Your task to perform on an android device: Show the shopping cart on ebay. Add jbl charge 4 to the cart on ebay Image 0: 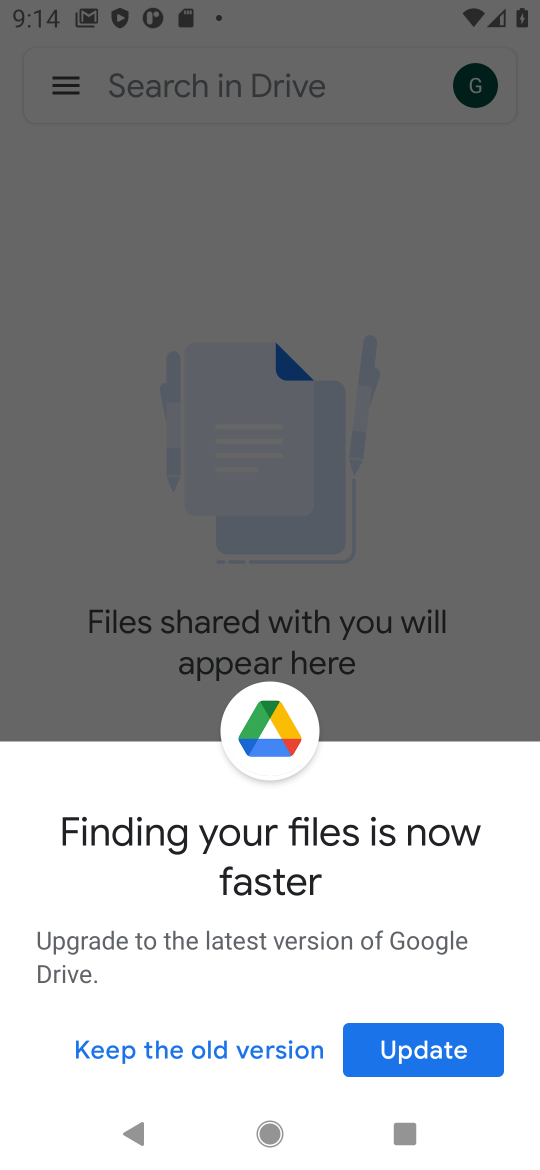
Step 0: press home button
Your task to perform on an android device: Show the shopping cart on ebay. Add jbl charge 4 to the cart on ebay Image 1: 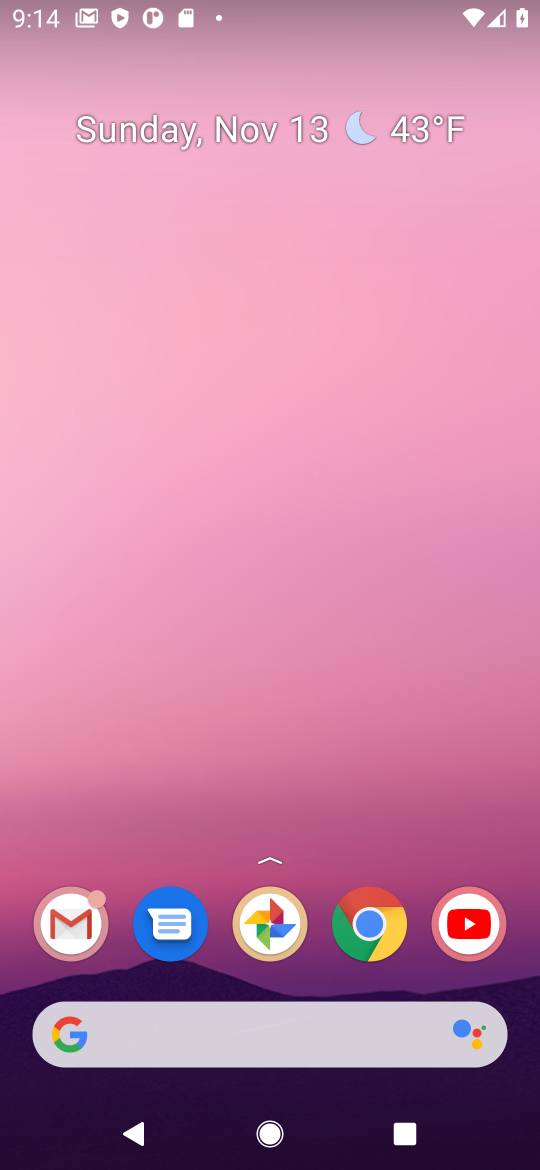
Step 1: click (381, 925)
Your task to perform on an android device: Show the shopping cart on ebay. Add jbl charge 4 to the cart on ebay Image 2: 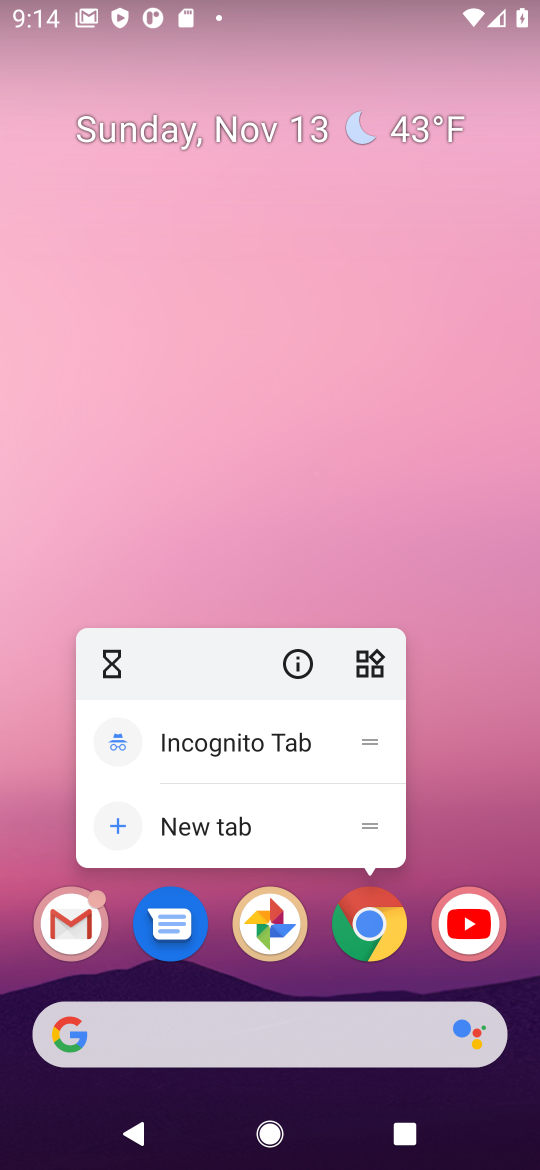
Step 2: click (369, 922)
Your task to perform on an android device: Show the shopping cart on ebay. Add jbl charge 4 to the cart on ebay Image 3: 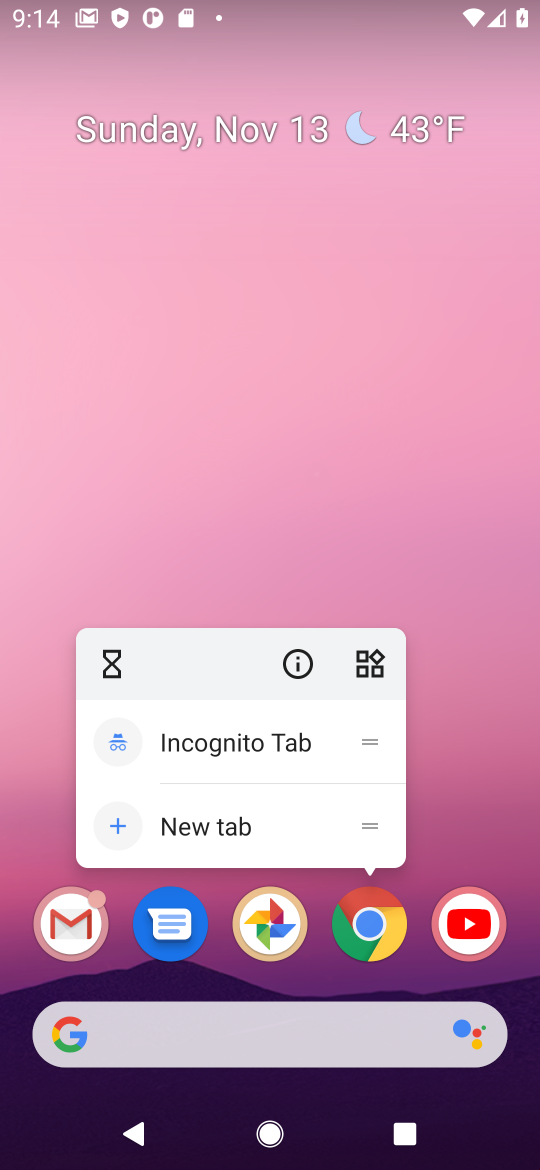
Step 3: click (367, 925)
Your task to perform on an android device: Show the shopping cart on ebay. Add jbl charge 4 to the cart on ebay Image 4: 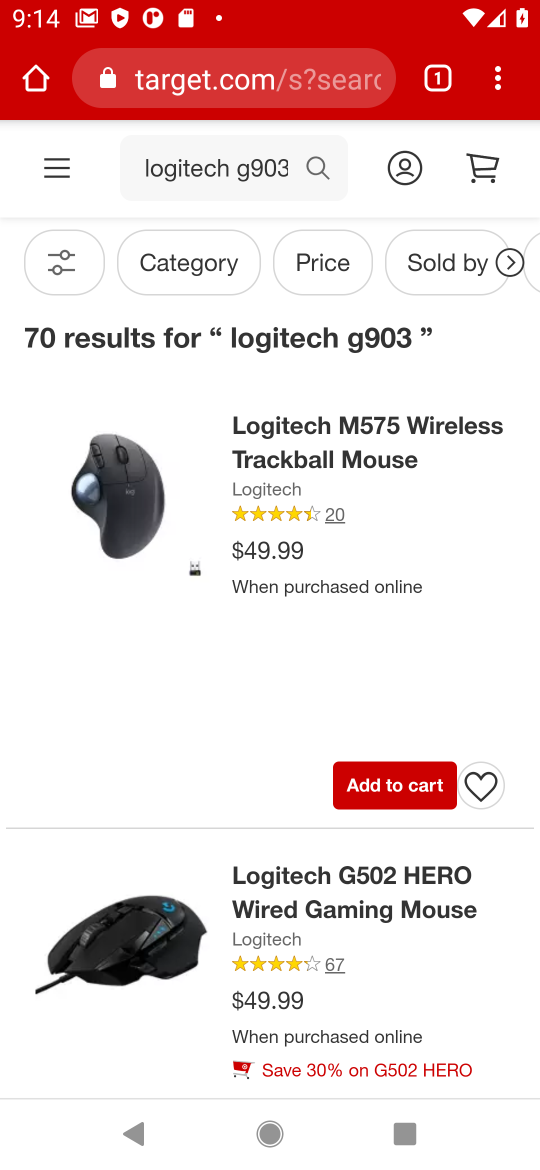
Step 4: click (297, 74)
Your task to perform on an android device: Show the shopping cart on ebay. Add jbl charge 4 to the cart on ebay Image 5: 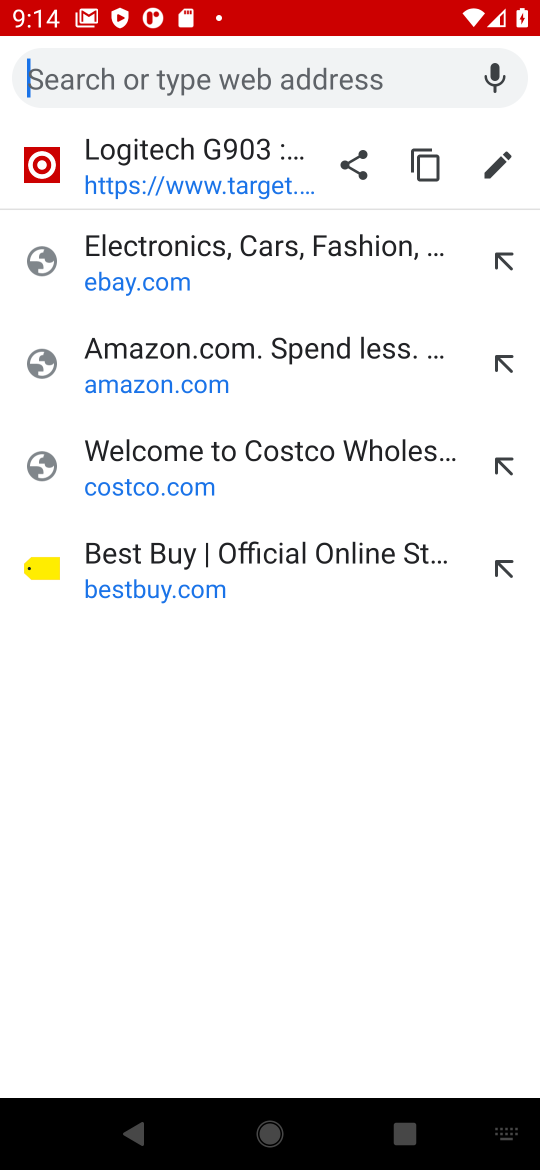
Step 5: click (156, 281)
Your task to perform on an android device: Show the shopping cart on ebay. Add jbl charge 4 to the cart on ebay Image 6: 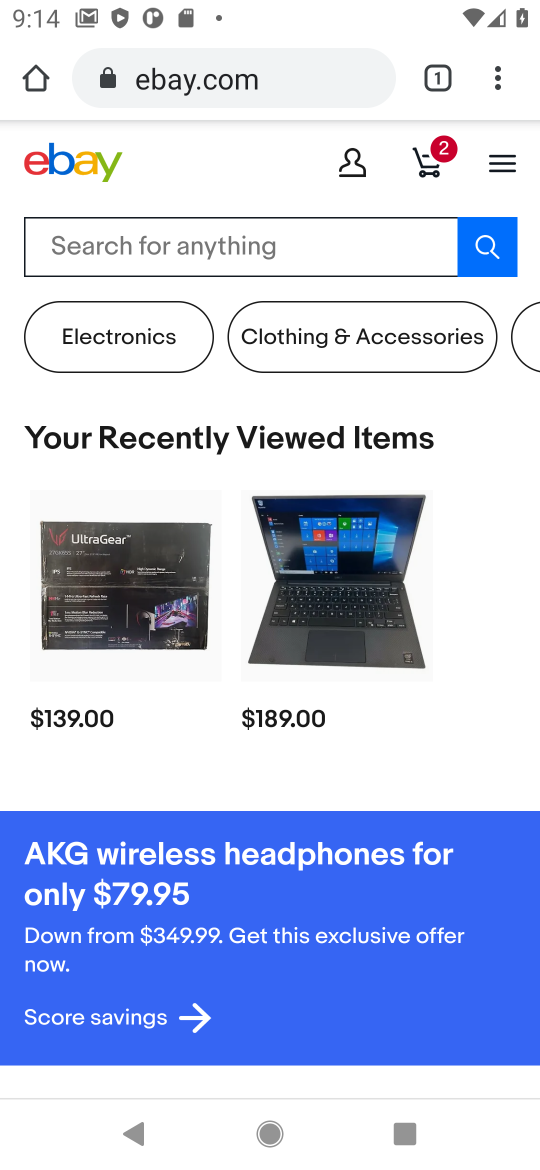
Step 6: click (171, 234)
Your task to perform on an android device: Show the shopping cart on ebay. Add jbl charge 4 to the cart on ebay Image 7: 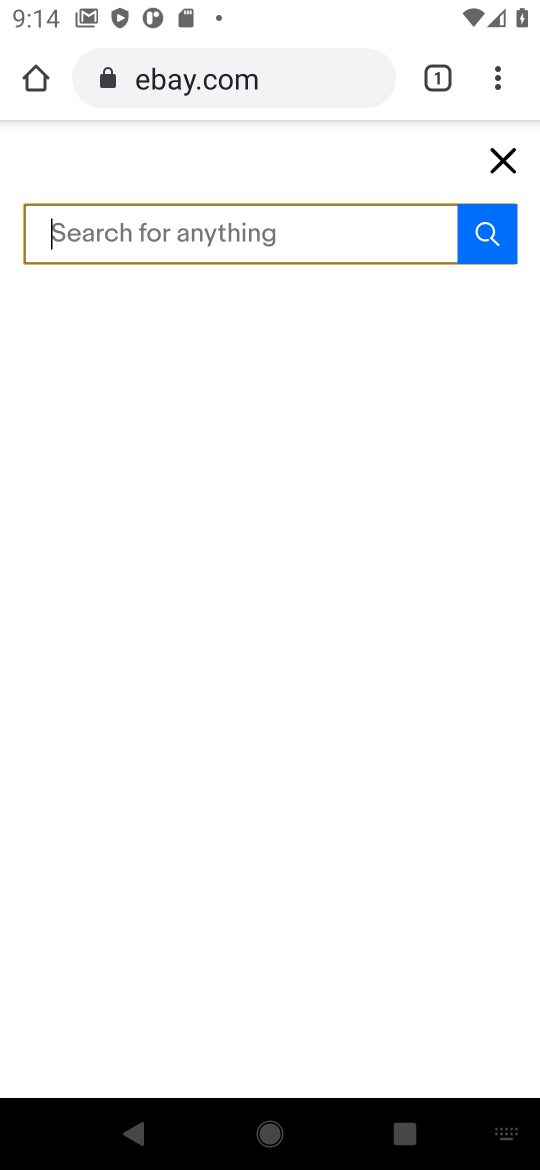
Step 7: type " jbl charge 4"
Your task to perform on an android device: Show the shopping cart on ebay. Add jbl charge 4 to the cart on ebay Image 8: 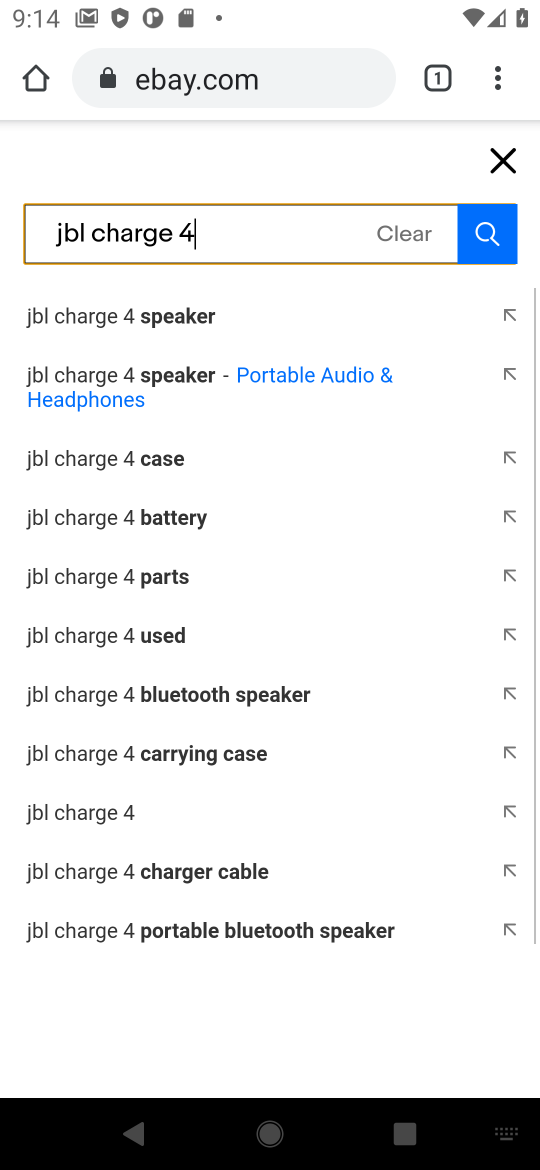
Step 8: press enter
Your task to perform on an android device: Show the shopping cart on ebay. Add jbl charge 4 to the cart on ebay Image 9: 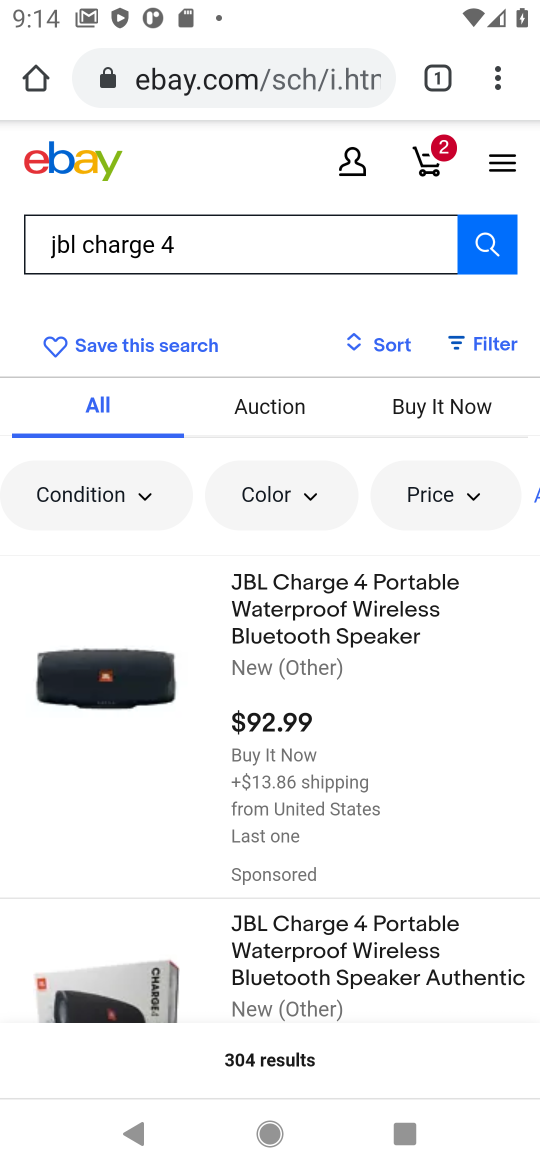
Step 9: click (303, 618)
Your task to perform on an android device: Show the shopping cart on ebay. Add jbl charge 4 to the cart on ebay Image 10: 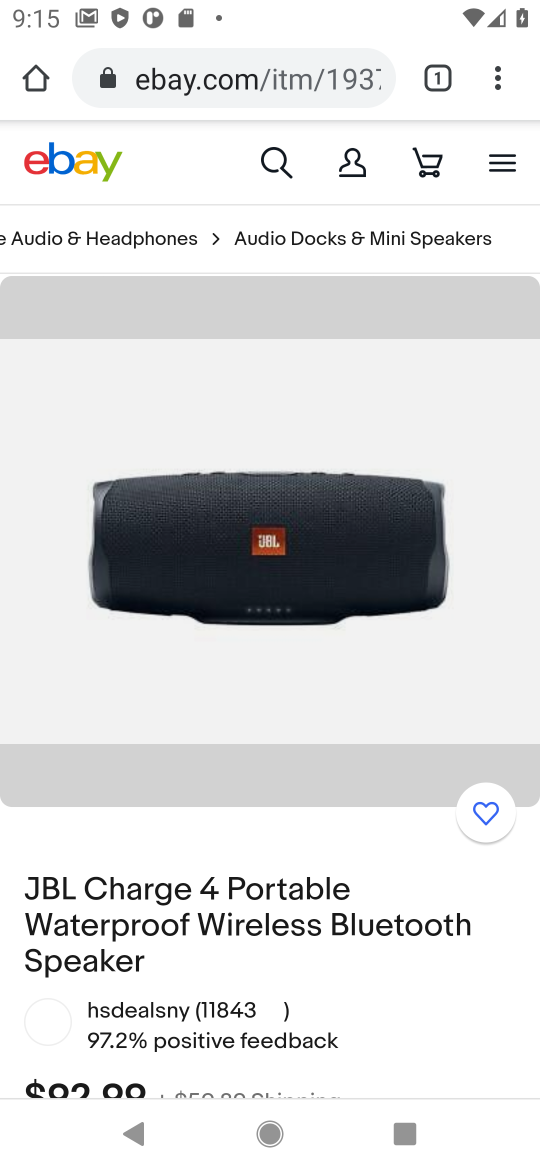
Step 10: drag from (264, 1034) to (402, 357)
Your task to perform on an android device: Show the shopping cart on ebay. Add jbl charge 4 to the cart on ebay Image 11: 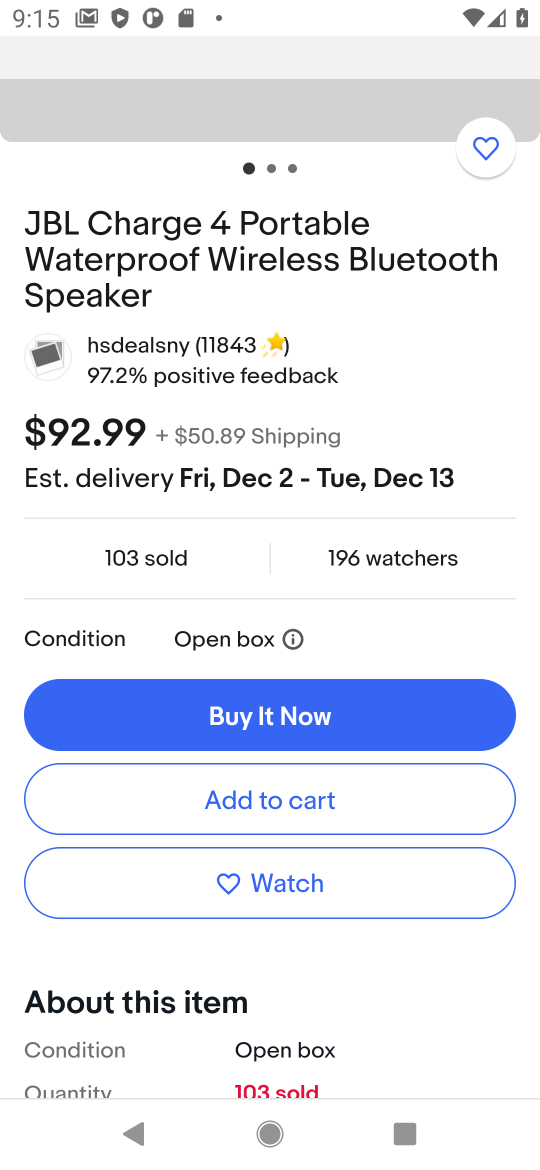
Step 11: click (312, 789)
Your task to perform on an android device: Show the shopping cart on ebay. Add jbl charge 4 to the cart on ebay Image 12: 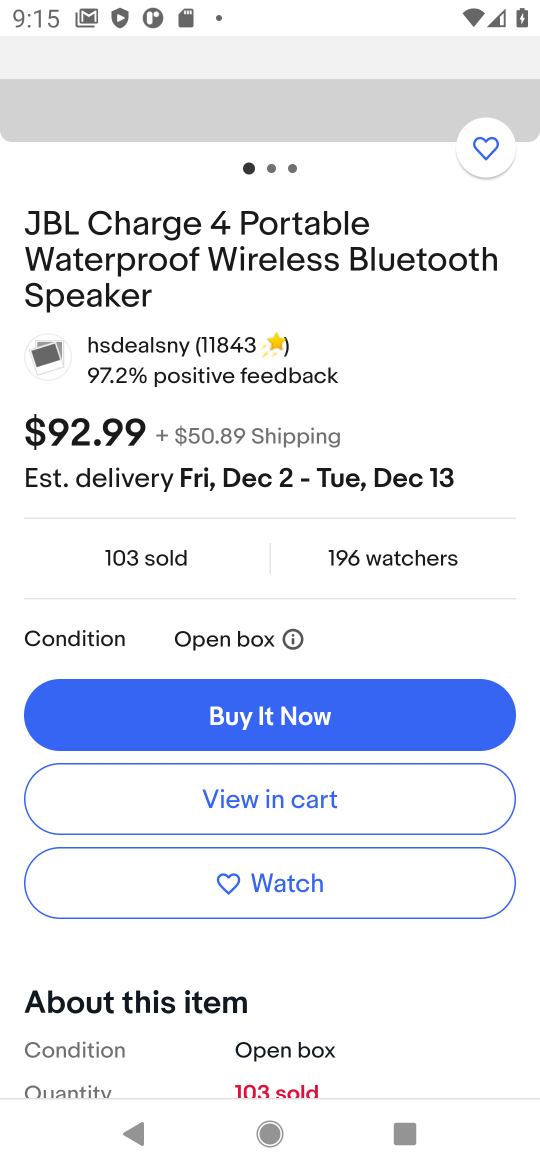
Step 12: click (312, 801)
Your task to perform on an android device: Show the shopping cart on ebay. Add jbl charge 4 to the cart on ebay Image 13: 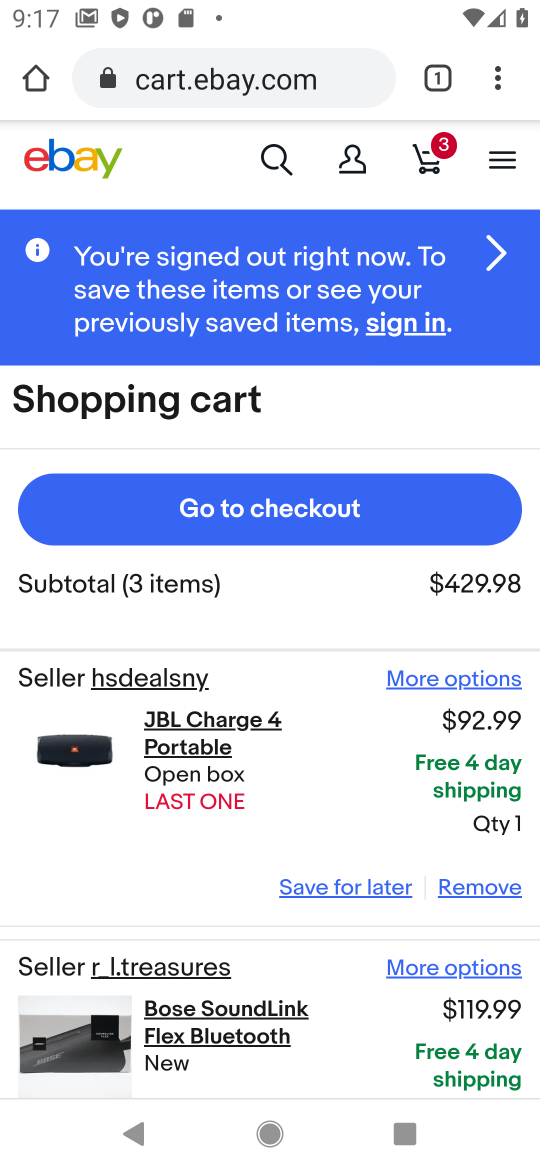
Step 13: task complete